Your task to perform on an android device: change notification settings in the gmail app Image 0: 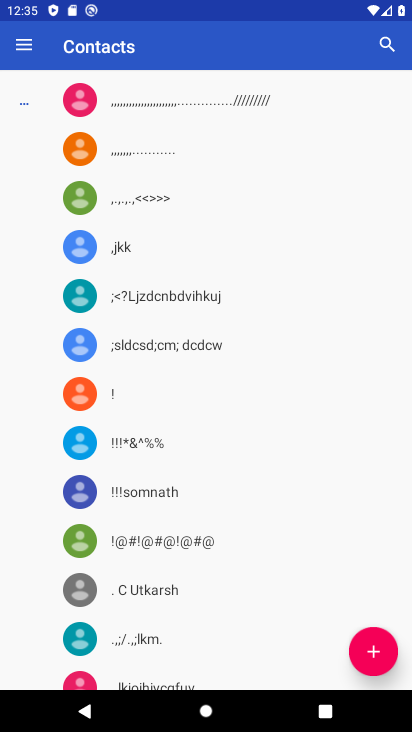
Step 0: press back button
Your task to perform on an android device: change notification settings in the gmail app Image 1: 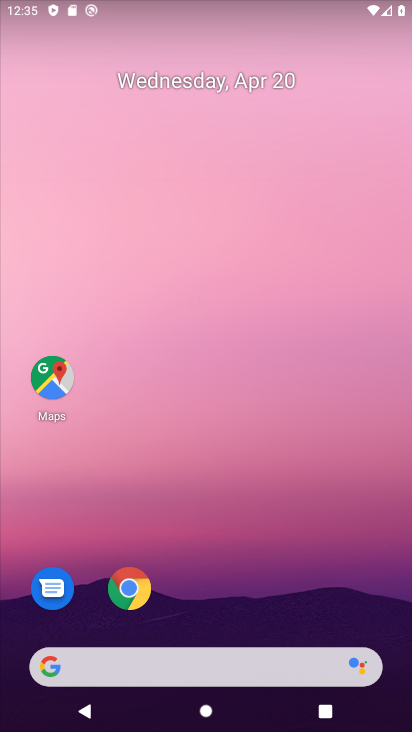
Step 1: drag from (185, 644) to (288, 254)
Your task to perform on an android device: change notification settings in the gmail app Image 2: 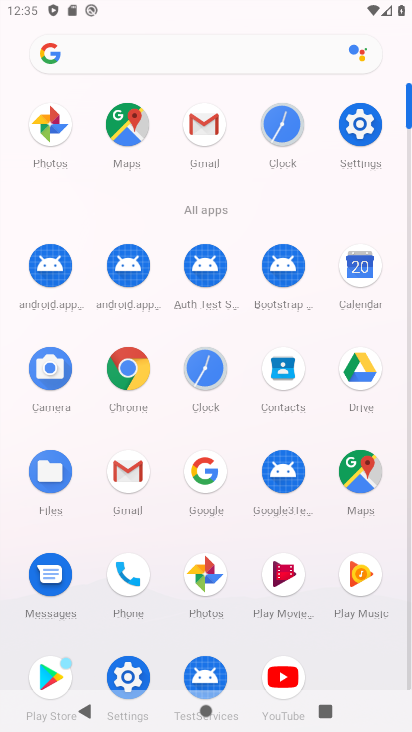
Step 2: click (199, 127)
Your task to perform on an android device: change notification settings in the gmail app Image 3: 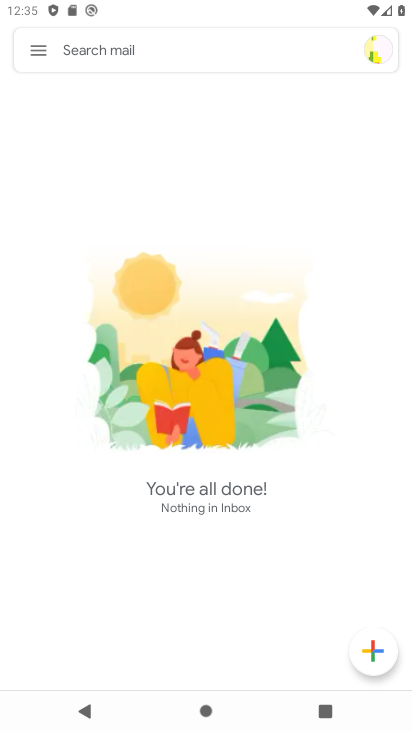
Step 3: click (50, 51)
Your task to perform on an android device: change notification settings in the gmail app Image 4: 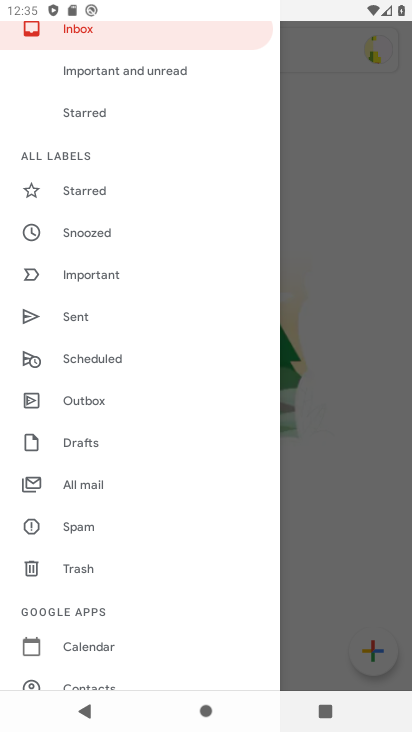
Step 4: drag from (102, 670) to (114, 349)
Your task to perform on an android device: change notification settings in the gmail app Image 5: 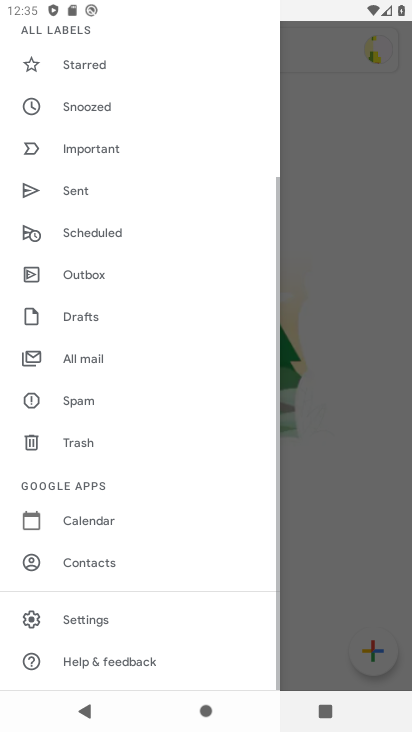
Step 5: click (84, 623)
Your task to perform on an android device: change notification settings in the gmail app Image 6: 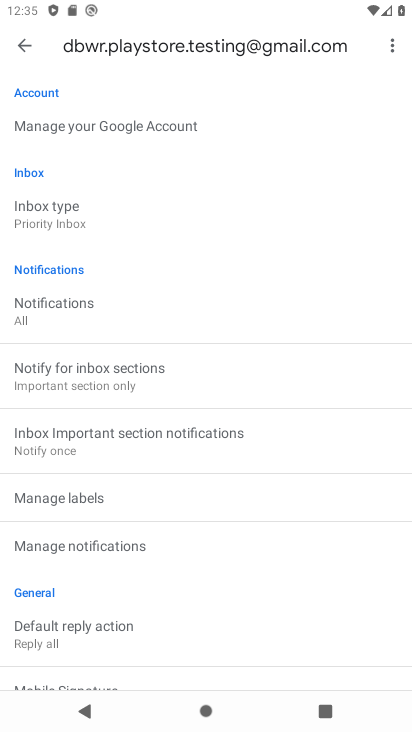
Step 6: click (54, 304)
Your task to perform on an android device: change notification settings in the gmail app Image 7: 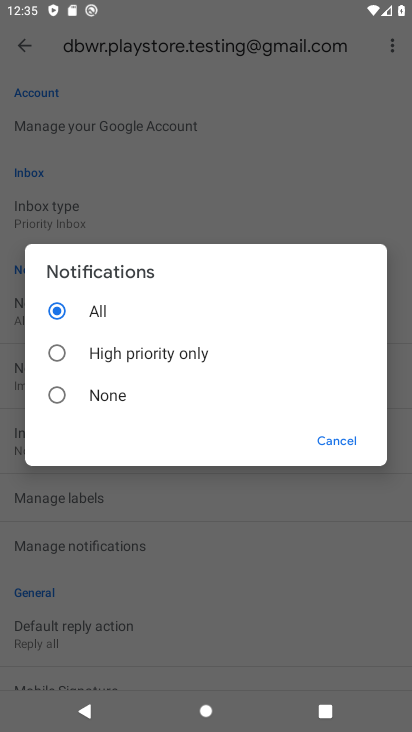
Step 7: click (118, 356)
Your task to perform on an android device: change notification settings in the gmail app Image 8: 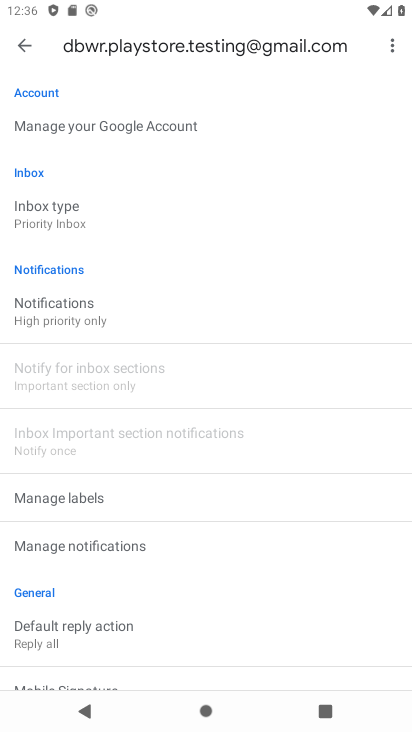
Step 8: click (100, 551)
Your task to perform on an android device: change notification settings in the gmail app Image 9: 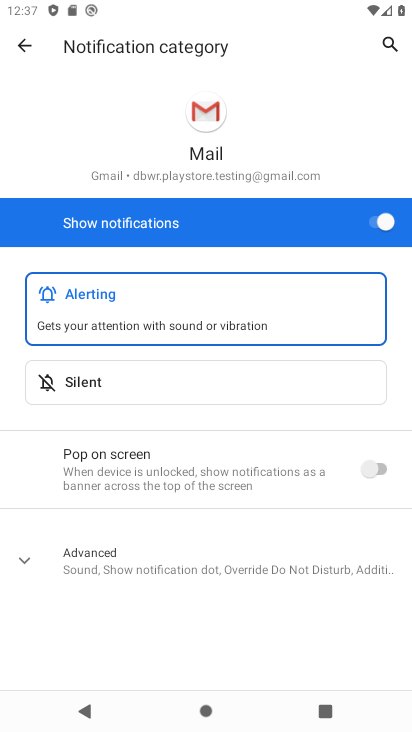
Step 9: click (116, 562)
Your task to perform on an android device: change notification settings in the gmail app Image 10: 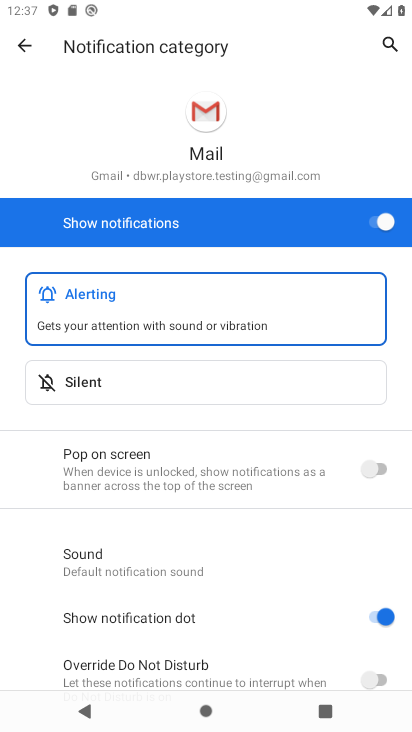
Step 10: click (380, 465)
Your task to perform on an android device: change notification settings in the gmail app Image 11: 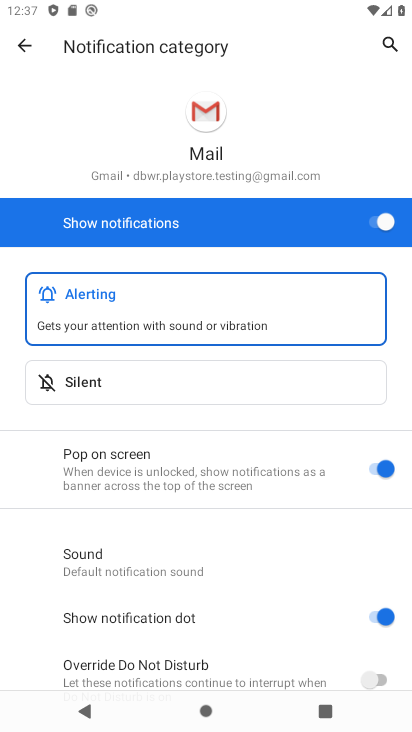
Step 11: task complete